Your task to perform on an android device: Go to wifi settings Image 0: 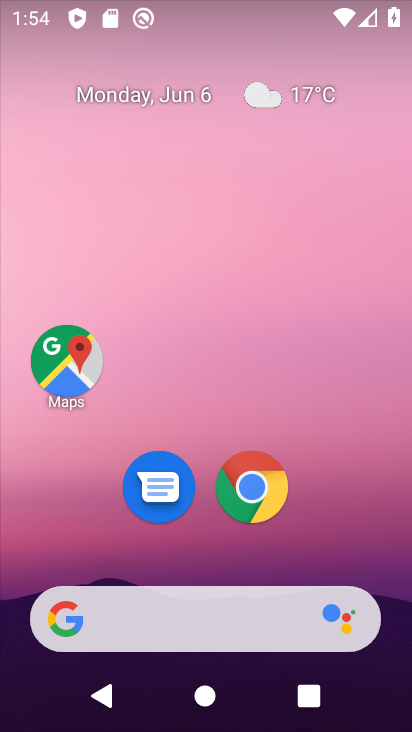
Step 0: drag from (192, 15) to (123, 425)
Your task to perform on an android device: Go to wifi settings Image 1: 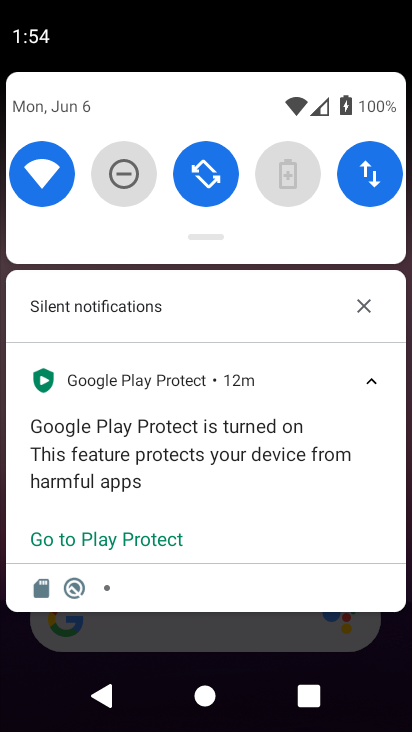
Step 1: click (48, 168)
Your task to perform on an android device: Go to wifi settings Image 2: 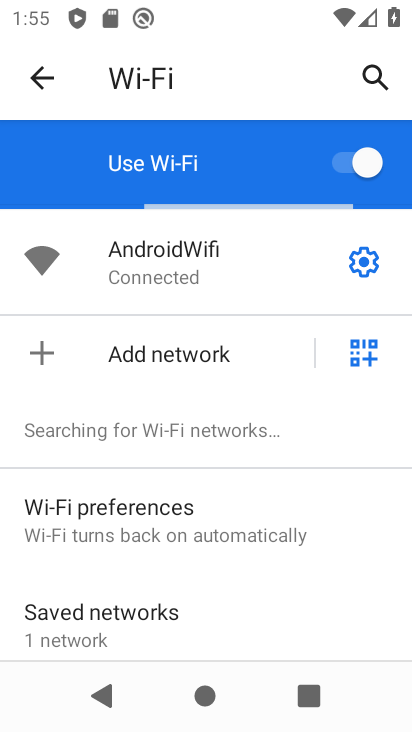
Step 2: task complete